Your task to perform on an android device: Go to Amazon Image 0: 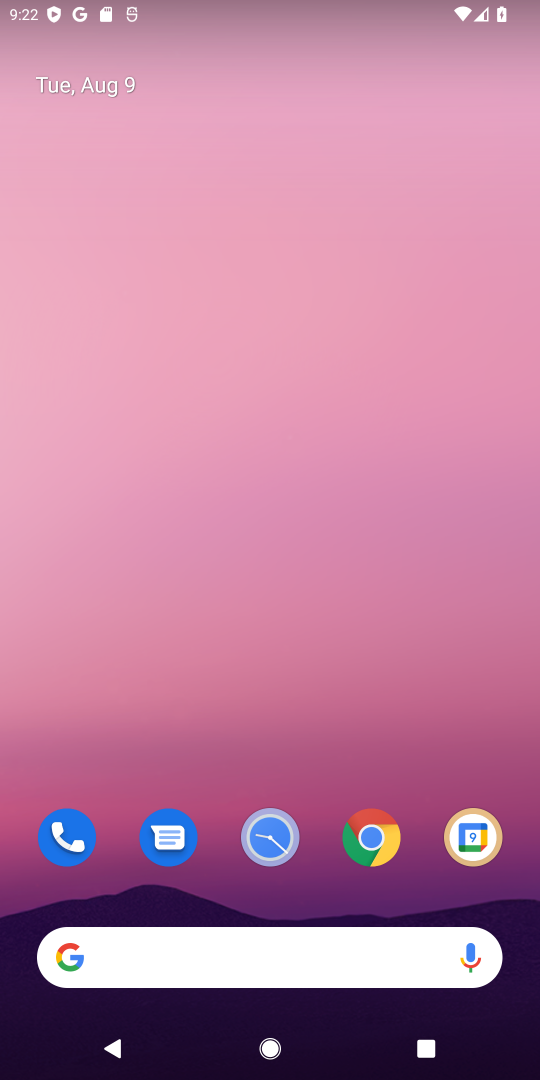
Step 0: click (377, 832)
Your task to perform on an android device: Go to Amazon Image 1: 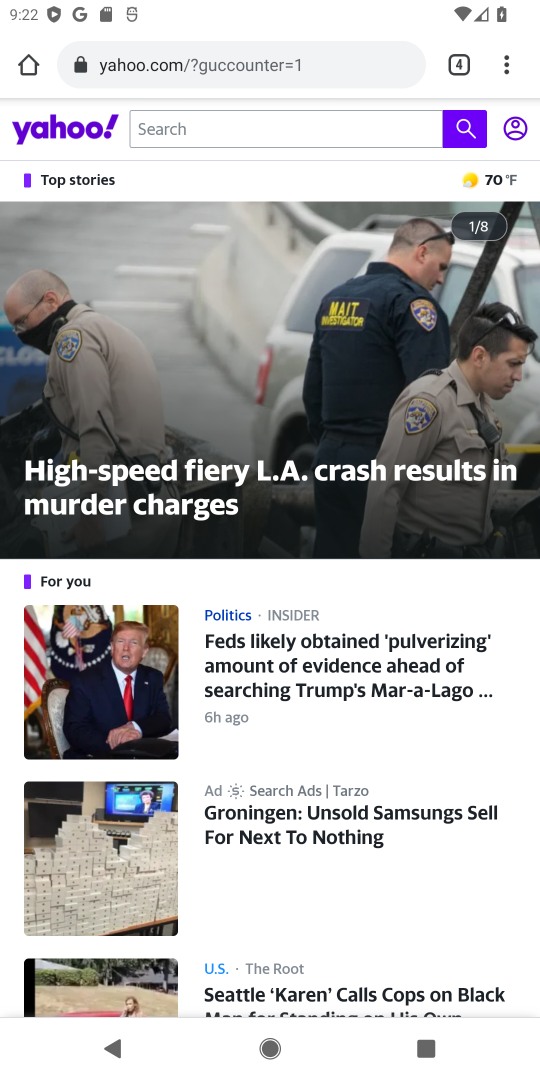
Step 1: drag from (505, 73) to (314, 203)
Your task to perform on an android device: Go to Amazon Image 2: 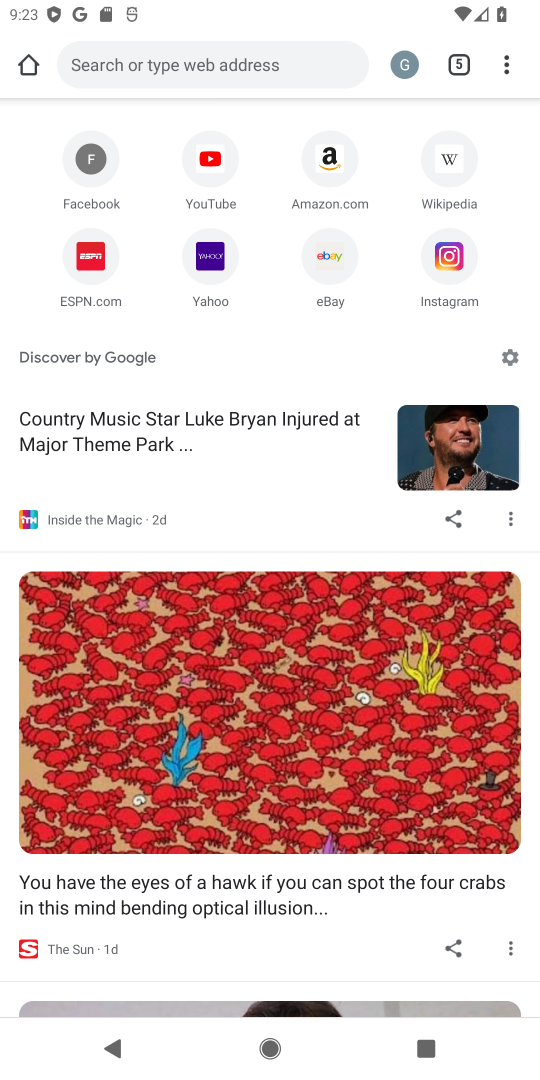
Step 2: click (319, 157)
Your task to perform on an android device: Go to Amazon Image 3: 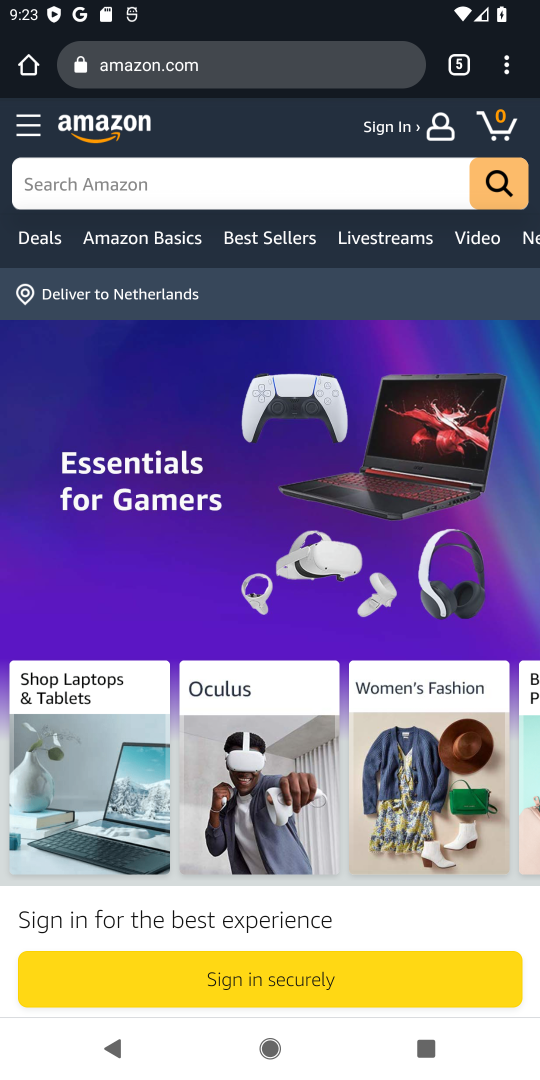
Step 3: task complete